Your task to perform on an android device: add a contact in the contacts app Image 0: 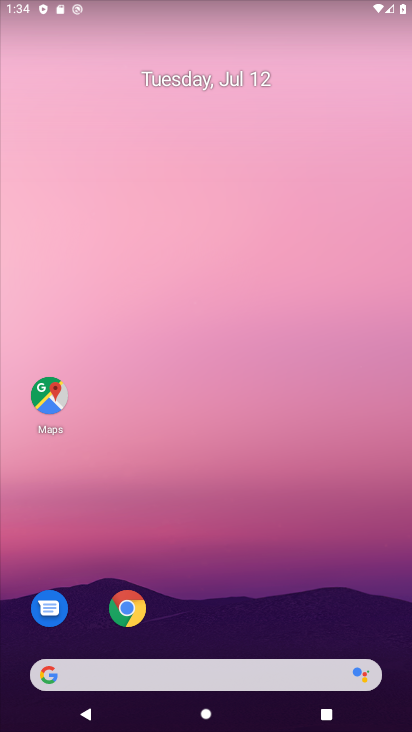
Step 0: drag from (320, 592) to (238, 136)
Your task to perform on an android device: add a contact in the contacts app Image 1: 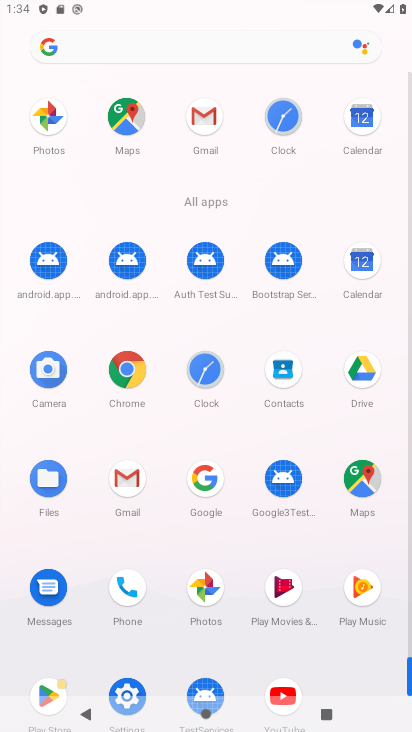
Step 1: click (285, 371)
Your task to perform on an android device: add a contact in the contacts app Image 2: 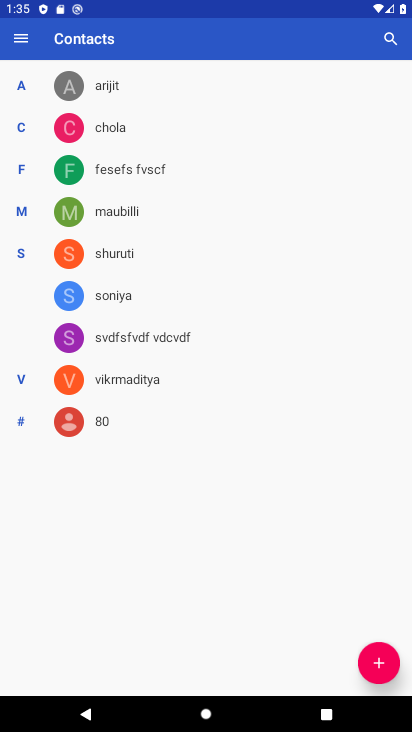
Step 2: click (375, 674)
Your task to perform on an android device: add a contact in the contacts app Image 3: 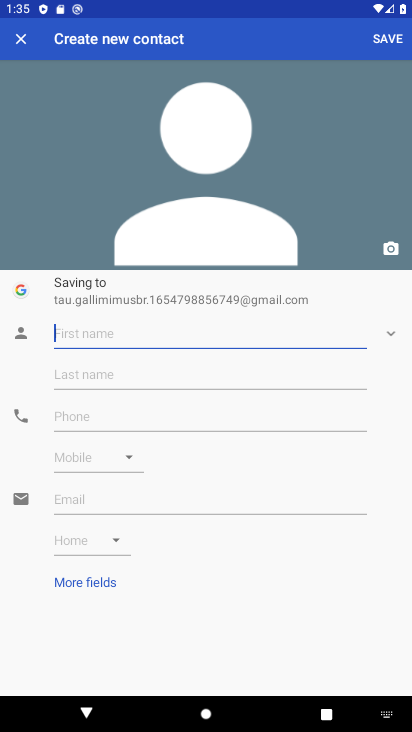
Step 3: type "janu manu"
Your task to perform on an android device: add a contact in the contacts app Image 4: 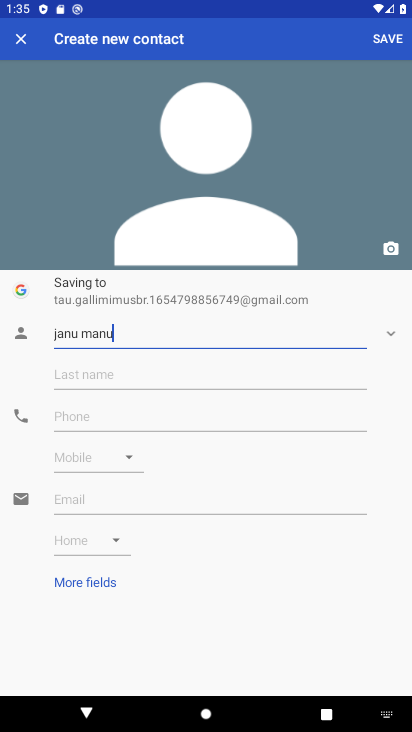
Step 4: click (383, 37)
Your task to perform on an android device: add a contact in the contacts app Image 5: 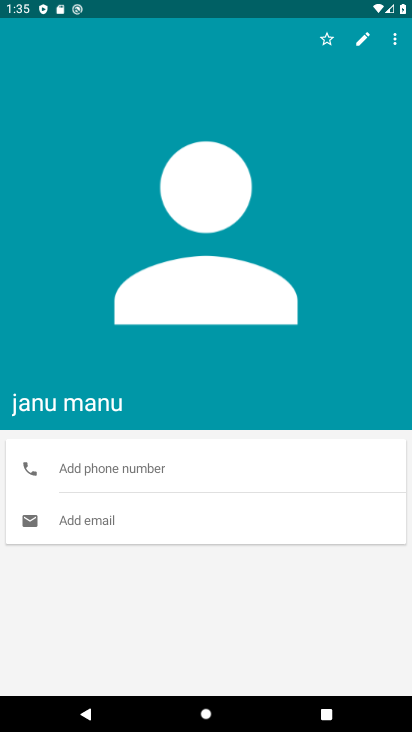
Step 5: task complete